Your task to perform on an android device: Clear all items from cart on ebay. Image 0: 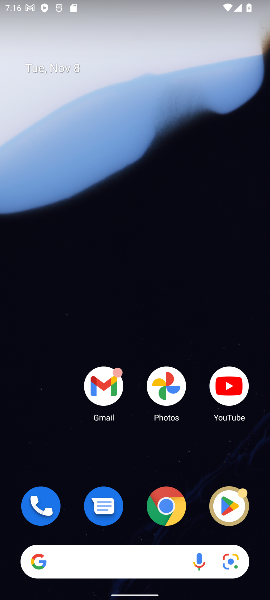
Step 0: click (123, 95)
Your task to perform on an android device: Clear all items from cart on ebay. Image 1: 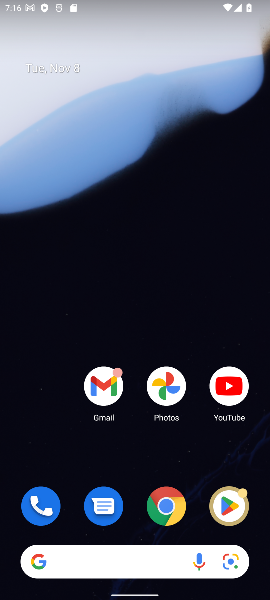
Step 1: click (173, 508)
Your task to perform on an android device: Clear all items from cart on ebay. Image 2: 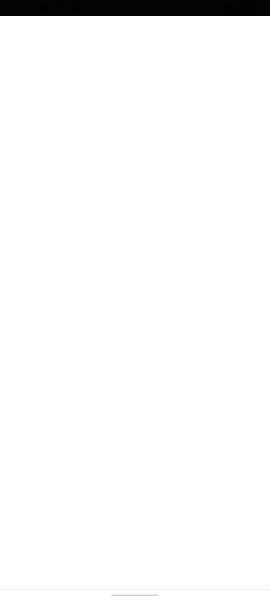
Step 2: click (173, 508)
Your task to perform on an android device: Clear all items from cart on ebay. Image 3: 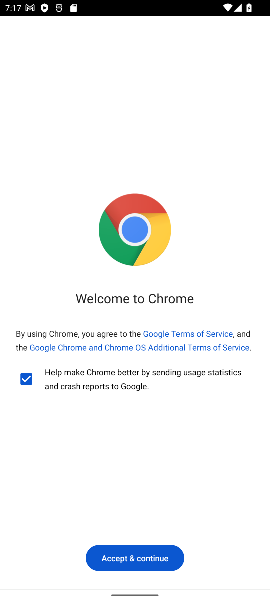
Step 3: click (123, 554)
Your task to perform on an android device: Clear all items from cart on ebay. Image 4: 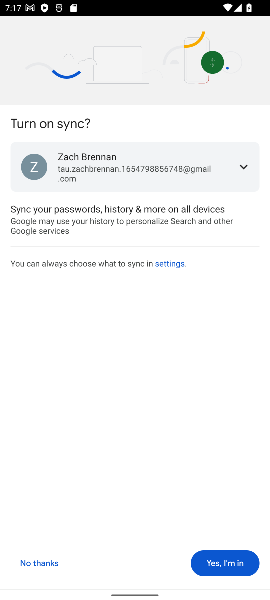
Step 4: click (220, 568)
Your task to perform on an android device: Clear all items from cart on ebay. Image 5: 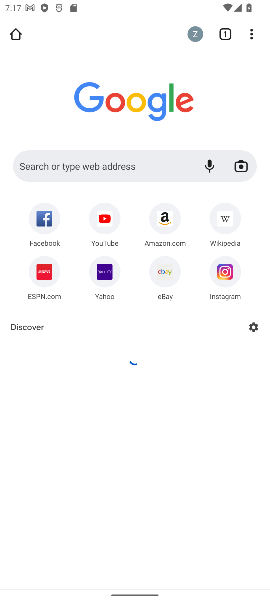
Step 5: click (85, 160)
Your task to perform on an android device: Clear all items from cart on ebay. Image 6: 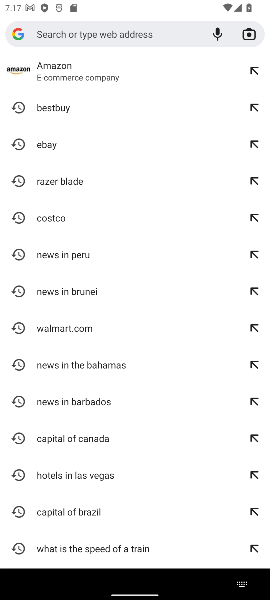
Step 6: type "ebay"
Your task to perform on an android device: Clear all items from cart on ebay. Image 7: 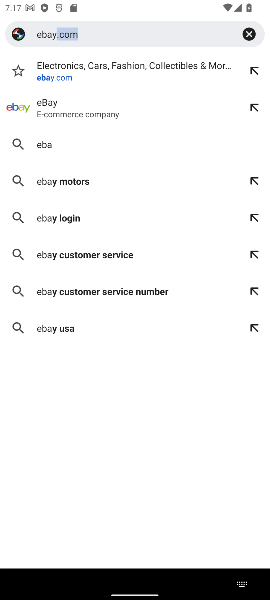
Step 7: press enter
Your task to perform on an android device: Clear all items from cart on ebay. Image 8: 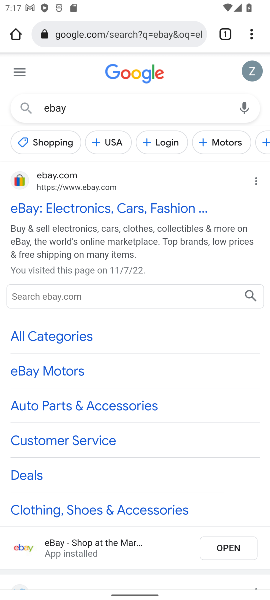
Step 8: click (71, 210)
Your task to perform on an android device: Clear all items from cart on ebay. Image 9: 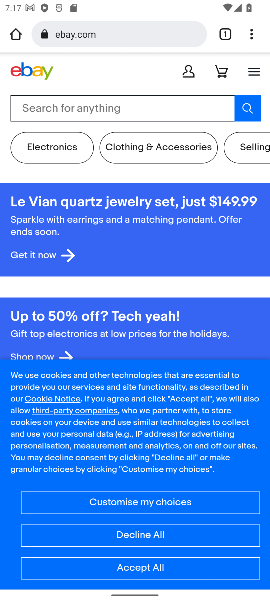
Step 9: click (221, 69)
Your task to perform on an android device: Clear all items from cart on ebay. Image 10: 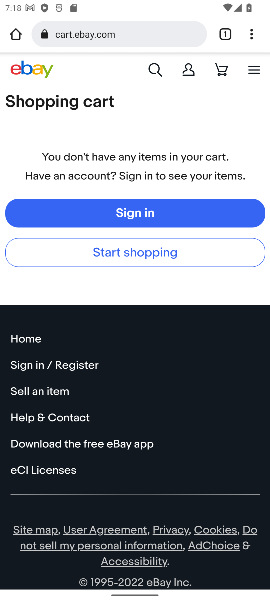
Step 10: task complete